Your task to perform on an android device: Open Yahoo.com Image 0: 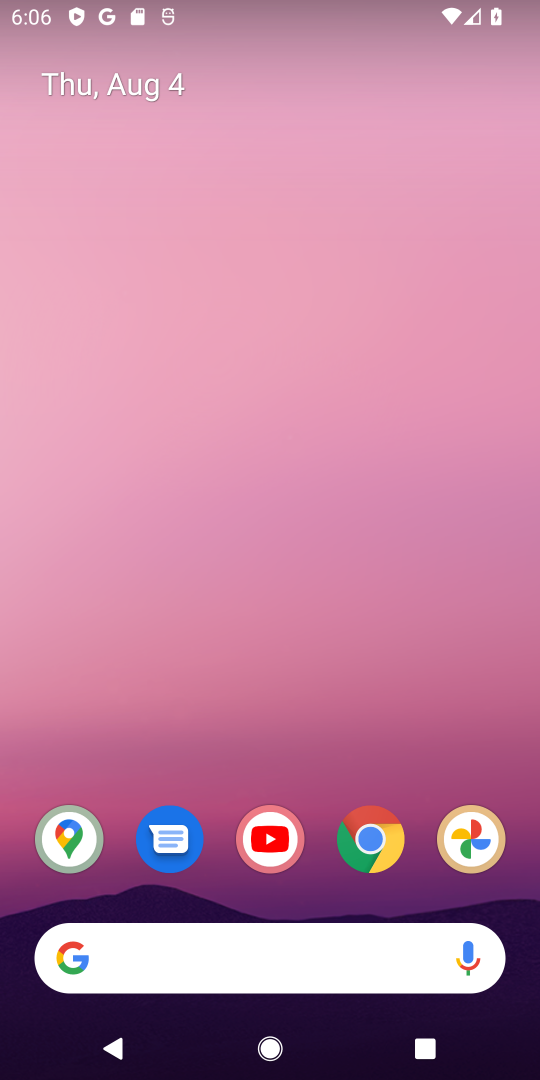
Step 0: drag from (311, 830) to (444, 111)
Your task to perform on an android device: Open Yahoo.com Image 1: 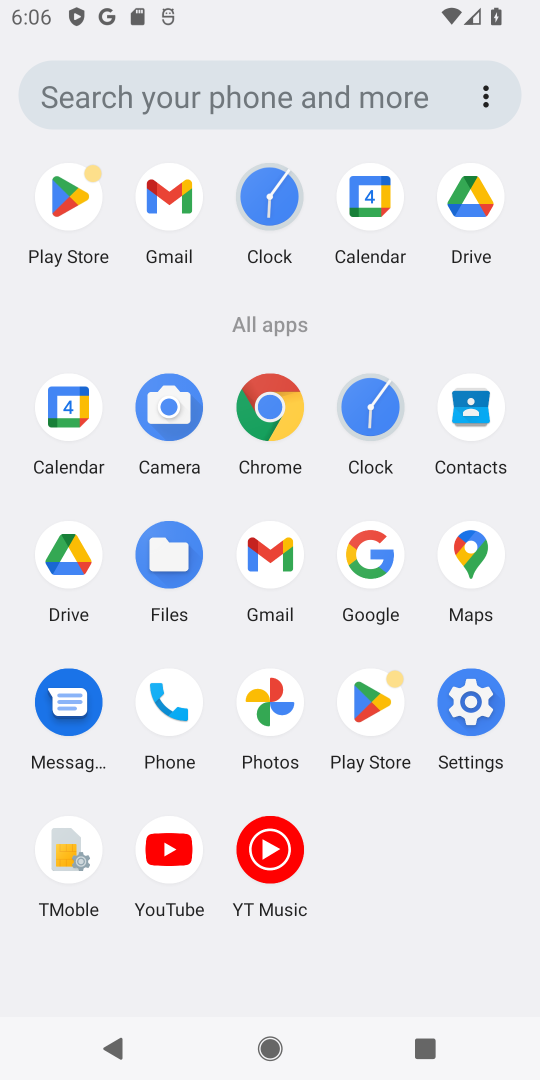
Step 1: click (271, 406)
Your task to perform on an android device: Open Yahoo.com Image 2: 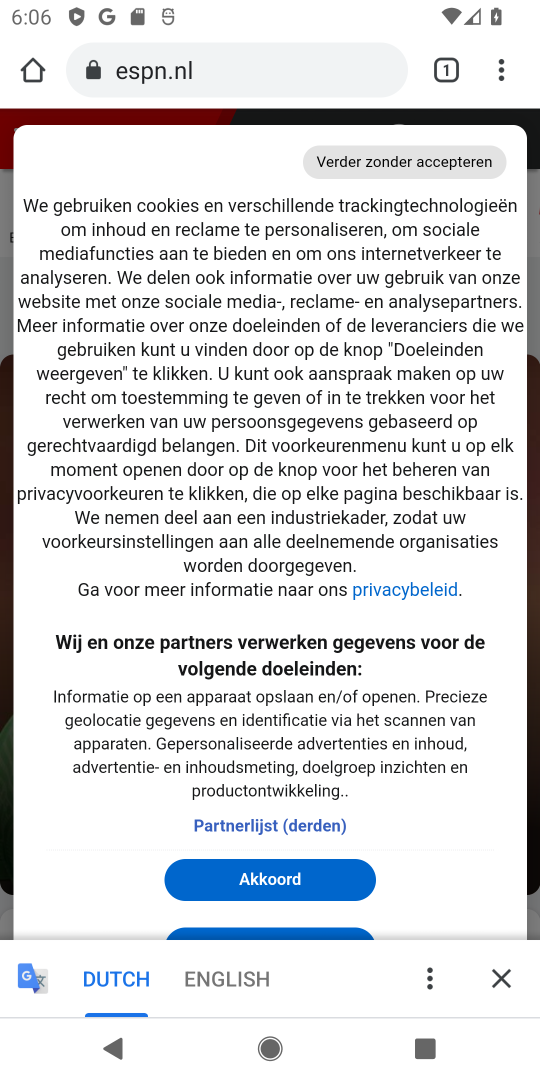
Step 2: click (338, 73)
Your task to perform on an android device: Open Yahoo.com Image 3: 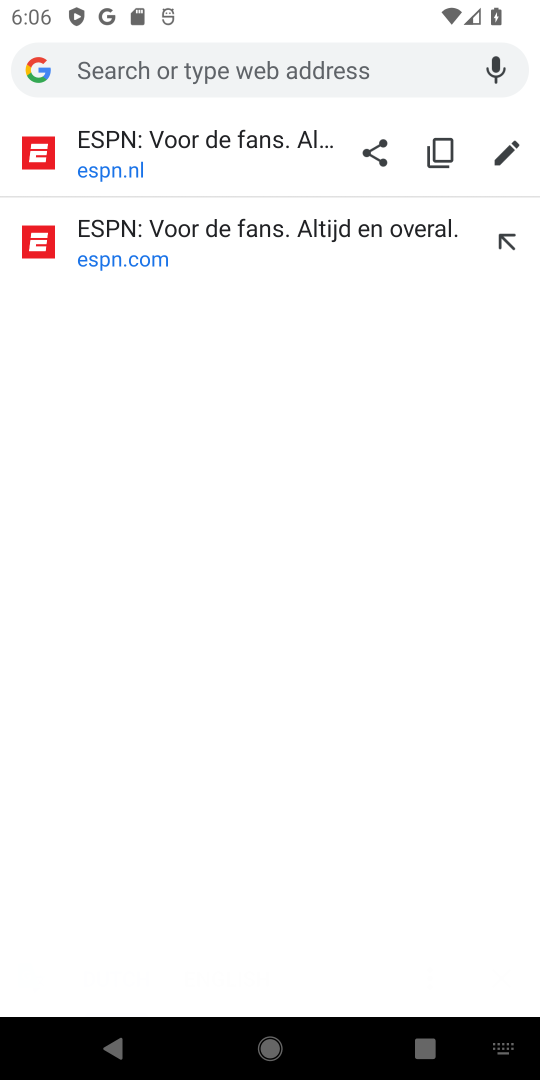
Step 3: type "yahoo.com"
Your task to perform on an android device: Open Yahoo.com Image 4: 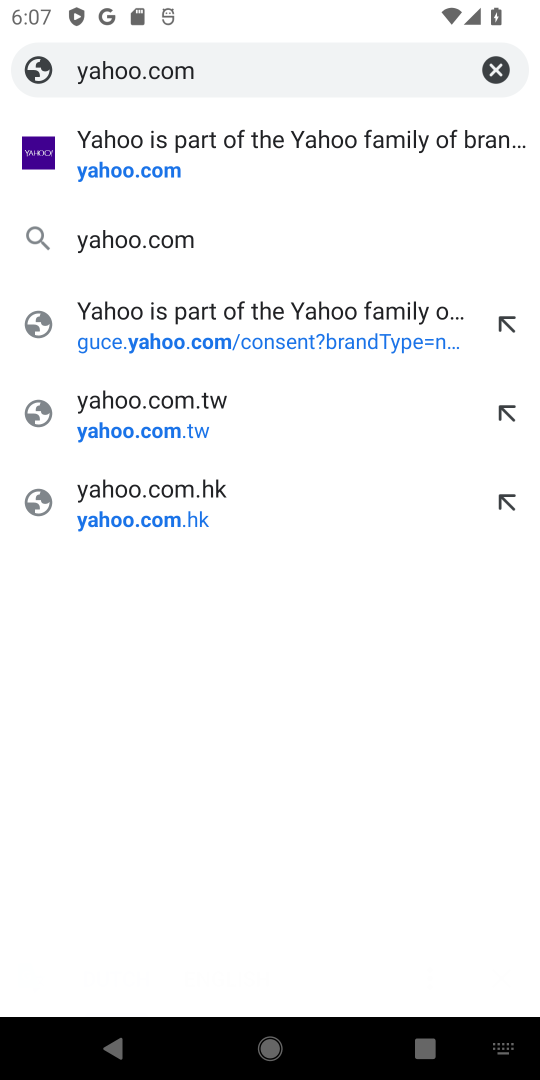
Step 4: click (99, 168)
Your task to perform on an android device: Open Yahoo.com Image 5: 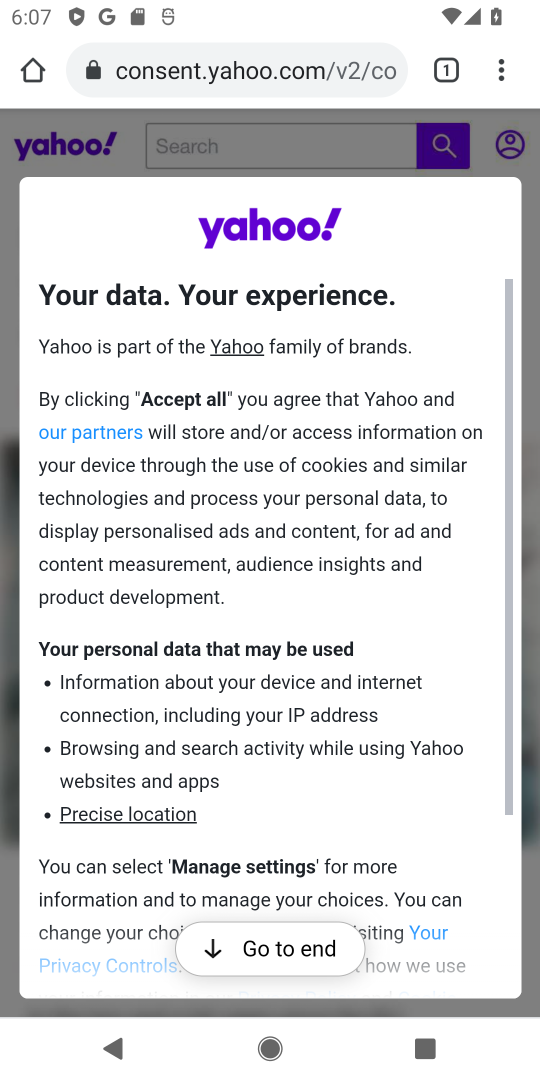
Step 5: task complete